Your task to perform on an android device: toggle sleep mode Image 0: 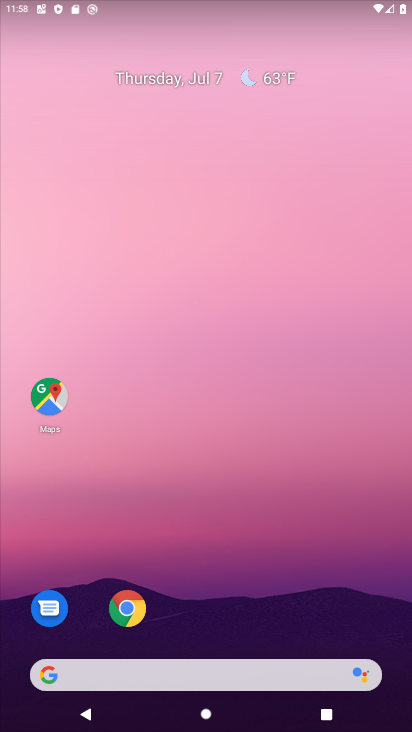
Step 0: drag from (39, 551) to (244, 71)
Your task to perform on an android device: toggle sleep mode Image 1: 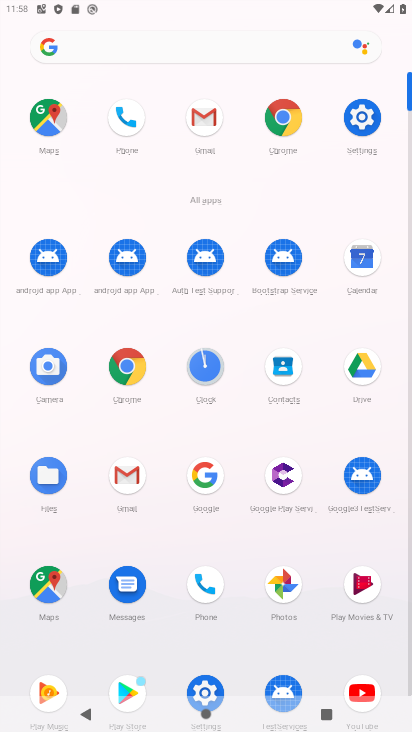
Step 1: click (358, 128)
Your task to perform on an android device: toggle sleep mode Image 2: 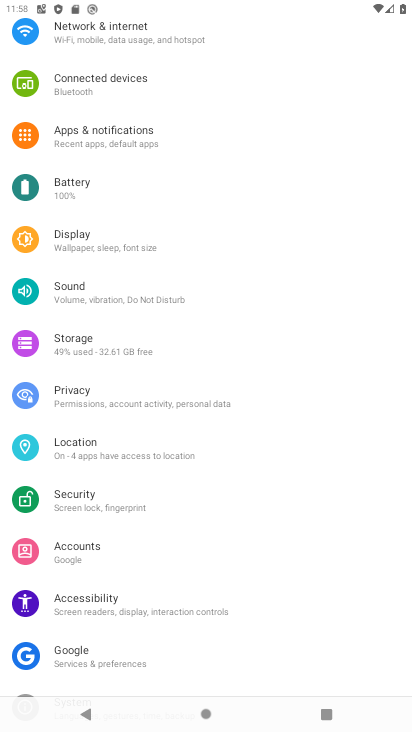
Step 2: task complete